Your task to perform on an android device: turn on location history Image 0: 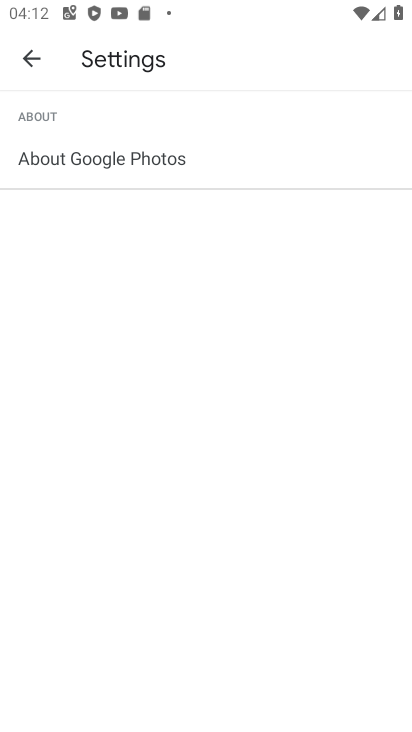
Step 0: press home button
Your task to perform on an android device: turn on location history Image 1: 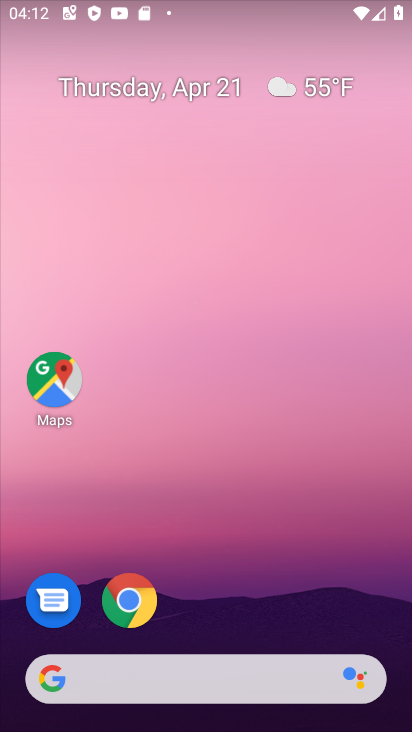
Step 1: drag from (227, 555) to (225, 148)
Your task to perform on an android device: turn on location history Image 2: 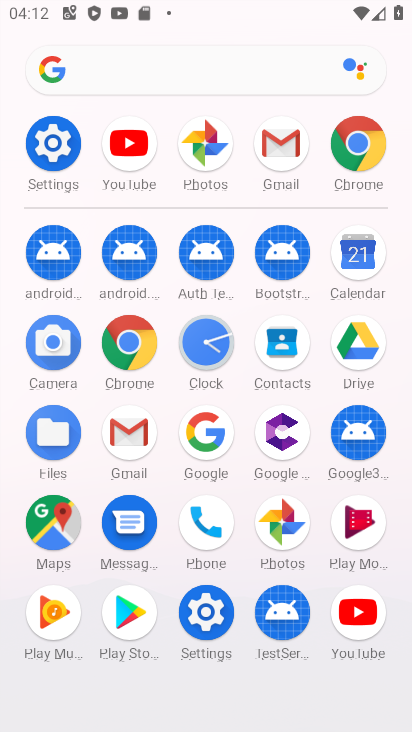
Step 2: click (61, 139)
Your task to perform on an android device: turn on location history Image 3: 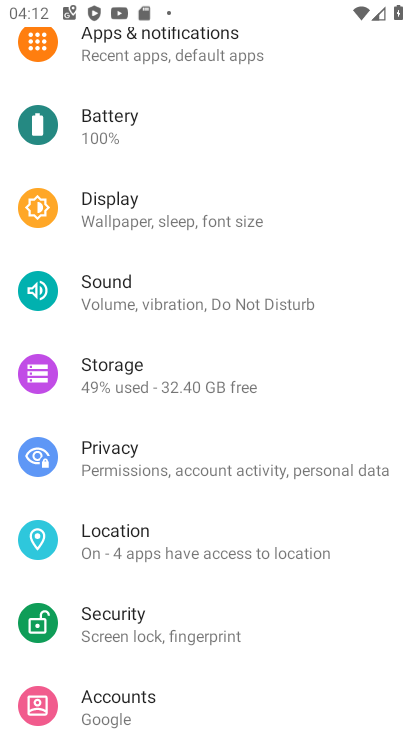
Step 3: drag from (169, 664) to (169, 571)
Your task to perform on an android device: turn on location history Image 4: 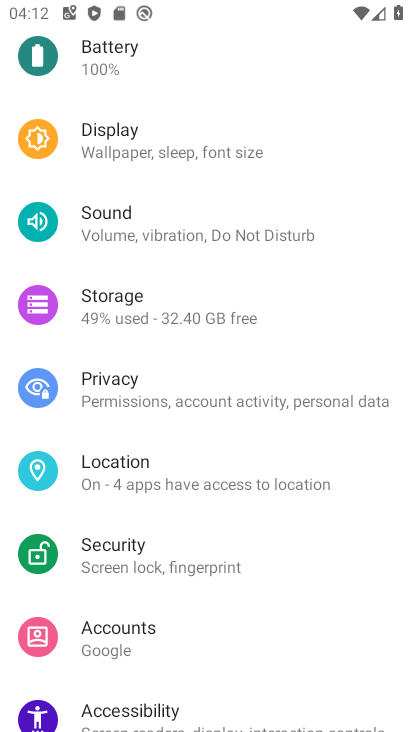
Step 4: click (176, 459)
Your task to perform on an android device: turn on location history Image 5: 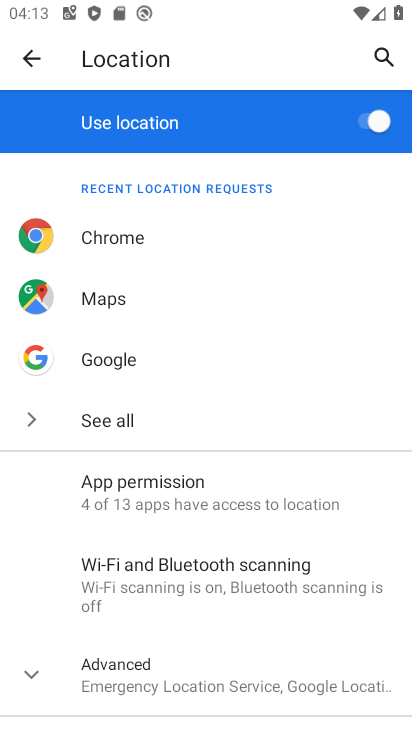
Step 5: drag from (209, 596) to (210, 449)
Your task to perform on an android device: turn on location history Image 6: 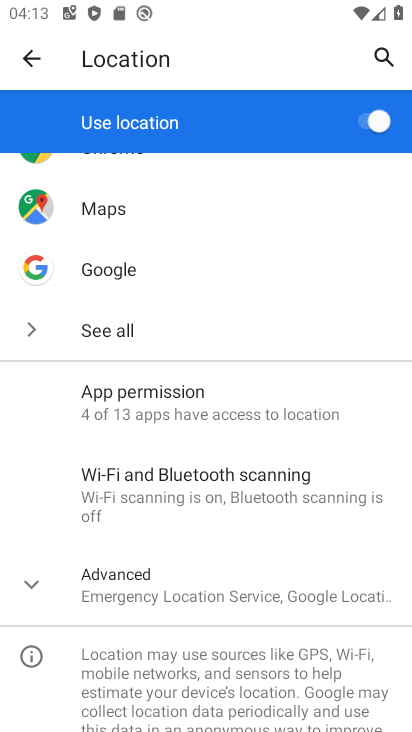
Step 6: click (175, 604)
Your task to perform on an android device: turn on location history Image 7: 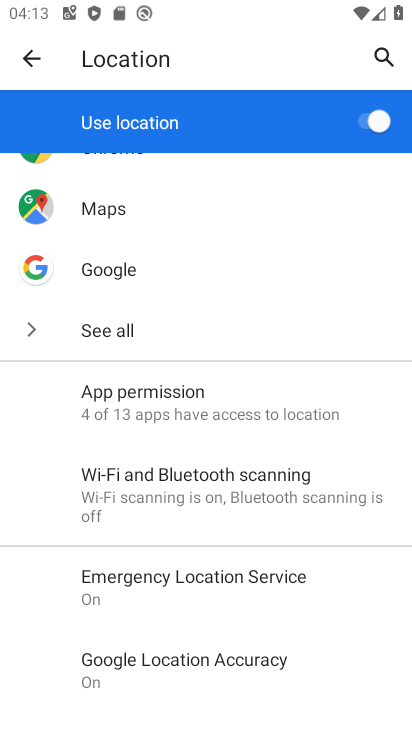
Step 7: drag from (185, 666) to (187, 536)
Your task to perform on an android device: turn on location history Image 8: 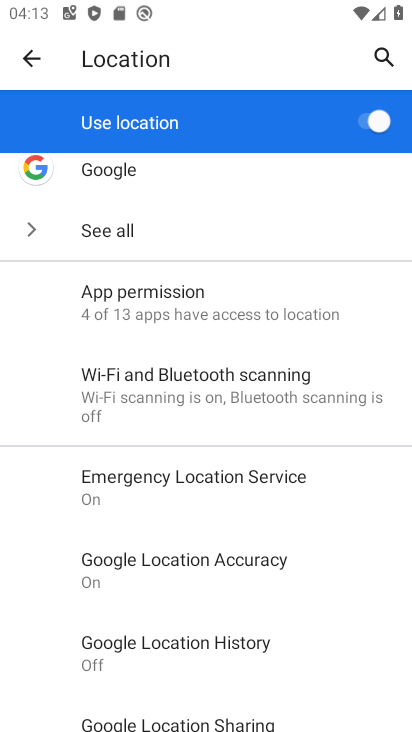
Step 8: click (184, 651)
Your task to perform on an android device: turn on location history Image 9: 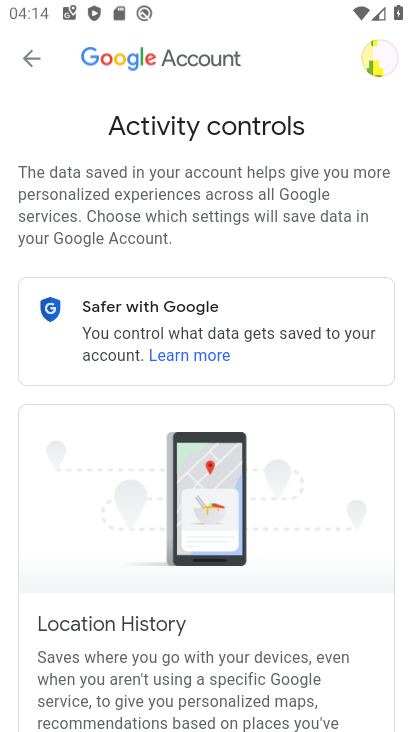
Step 9: task complete